Your task to perform on an android device: Open the stopwatch Image 0: 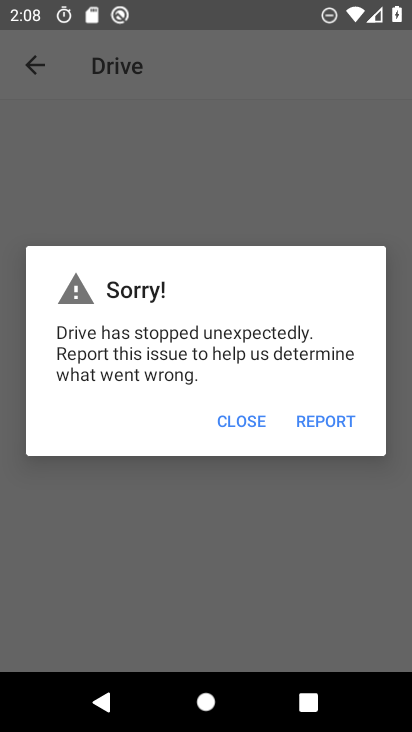
Step 0: press home button
Your task to perform on an android device: Open the stopwatch Image 1: 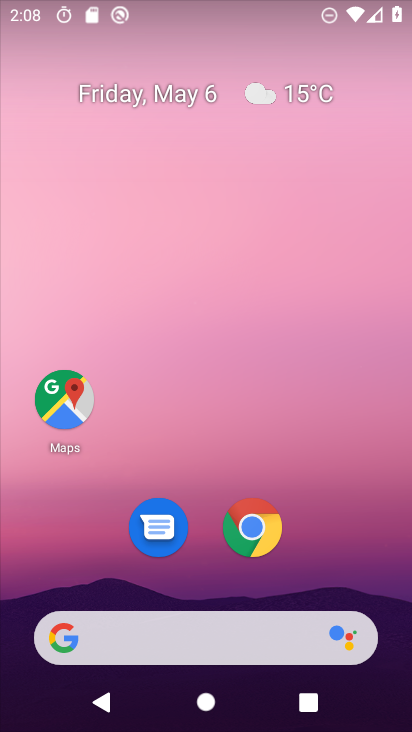
Step 1: drag from (334, 542) to (65, 90)
Your task to perform on an android device: Open the stopwatch Image 2: 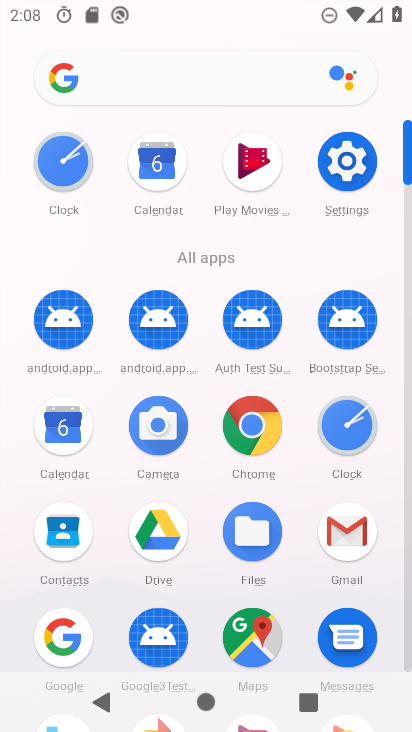
Step 2: click (72, 166)
Your task to perform on an android device: Open the stopwatch Image 3: 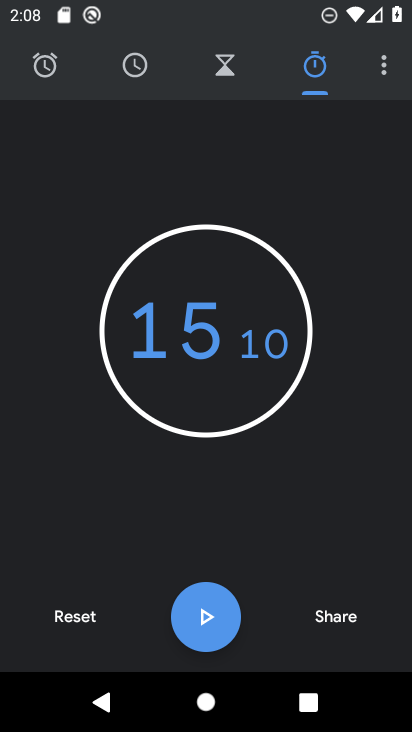
Step 3: task complete